Your task to perform on an android device: toggle javascript in the chrome app Image 0: 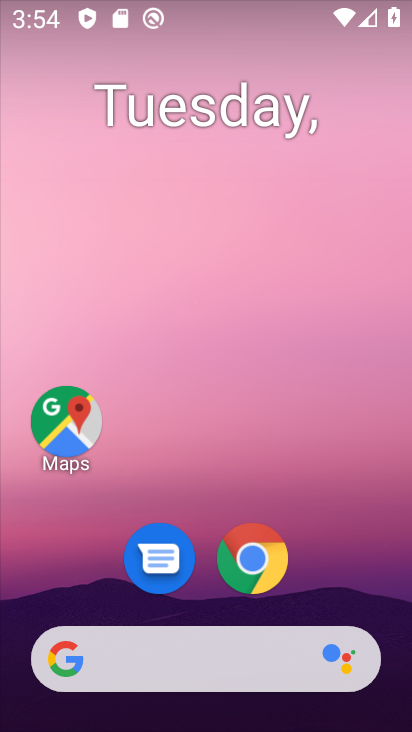
Step 0: click (265, 569)
Your task to perform on an android device: toggle javascript in the chrome app Image 1: 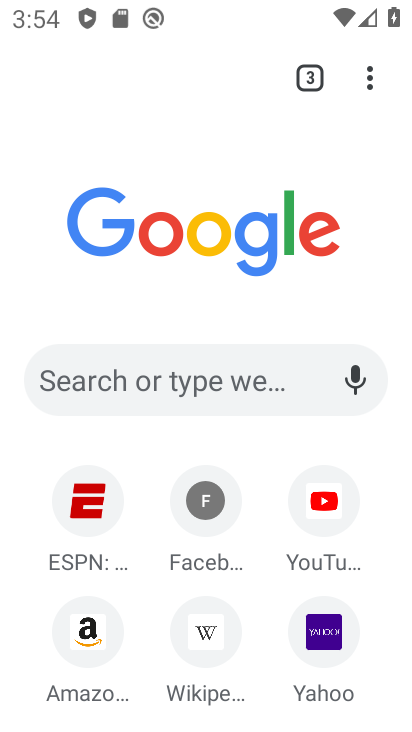
Step 1: click (372, 95)
Your task to perform on an android device: toggle javascript in the chrome app Image 2: 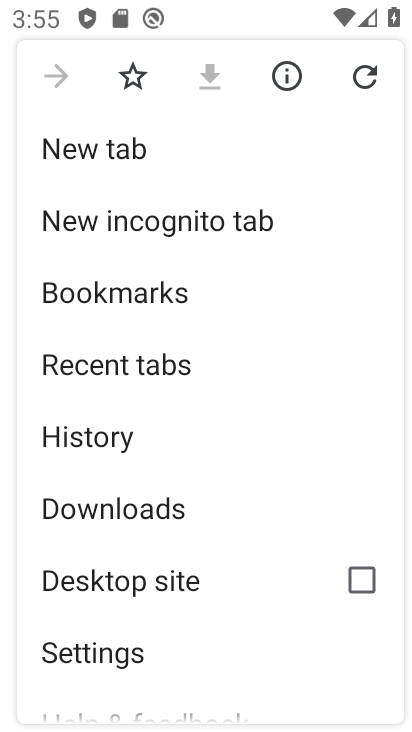
Step 2: click (206, 665)
Your task to perform on an android device: toggle javascript in the chrome app Image 3: 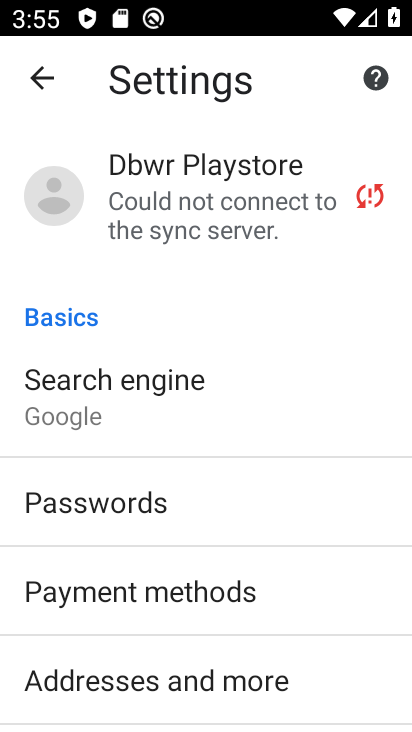
Step 3: drag from (287, 685) to (254, 317)
Your task to perform on an android device: toggle javascript in the chrome app Image 4: 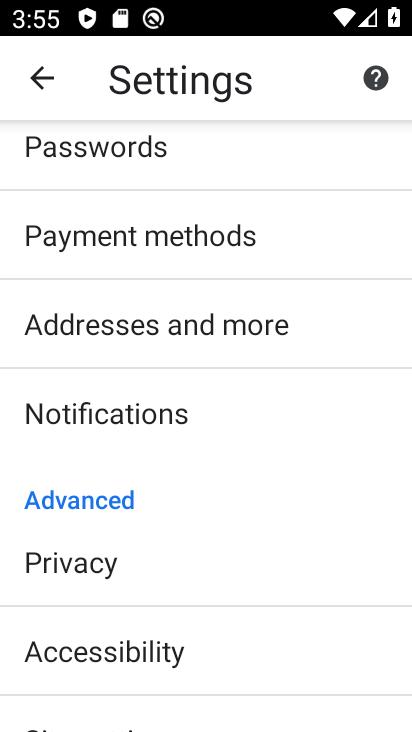
Step 4: drag from (266, 666) to (232, 293)
Your task to perform on an android device: toggle javascript in the chrome app Image 5: 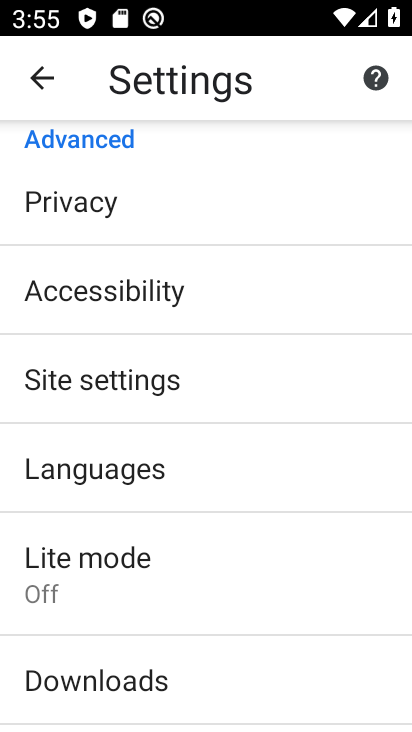
Step 5: click (233, 390)
Your task to perform on an android device: toggle javascript in the chrome app Image 6: 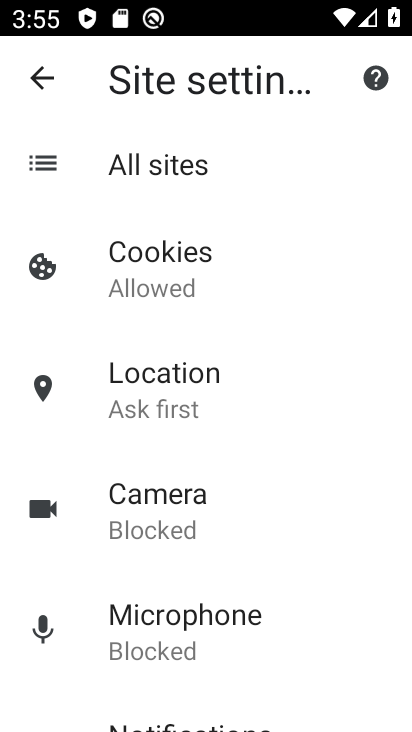
Step 6: drag from (258, 655) to (191, 299)
Your task to perform on an android device: toggle javascript in the chrome app Image 7: 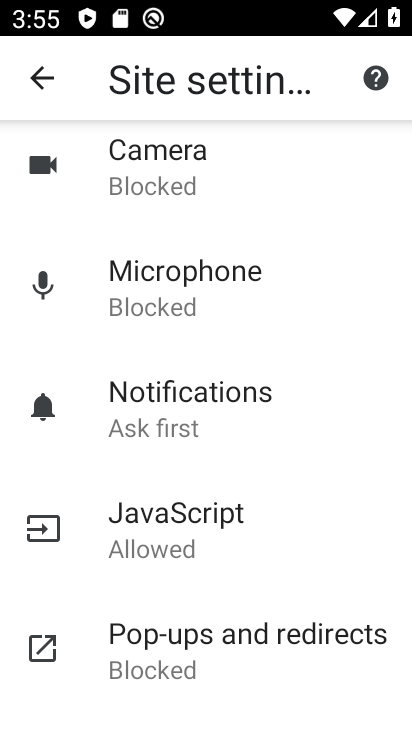
Step 7: click (198, 504)
Your task to perform on an android device: toggle javascript in the chrome app Image 8: 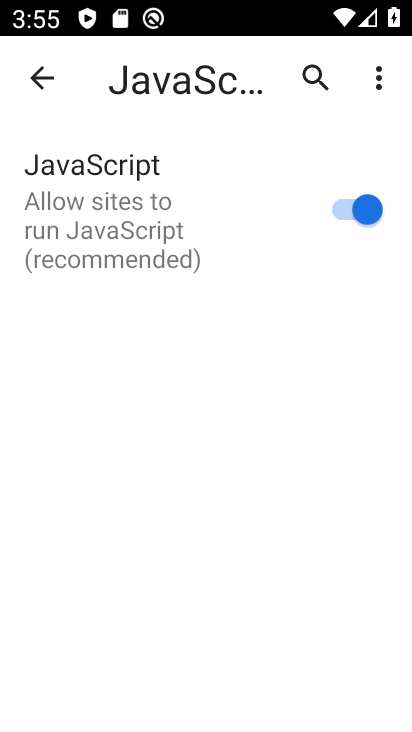
Step 8: click (347, 216)
Your task to perform on an android device: toggle javascript in the chrome app Image 9: 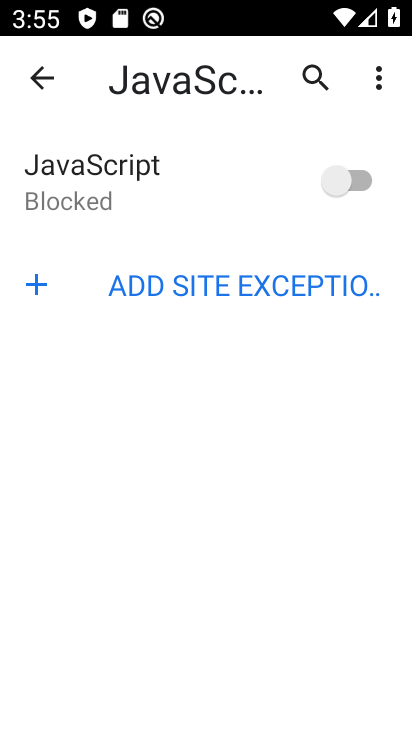
Step 9: task complete